Your task to perform on an android device: toggle data saver in the chrome app Image 0: 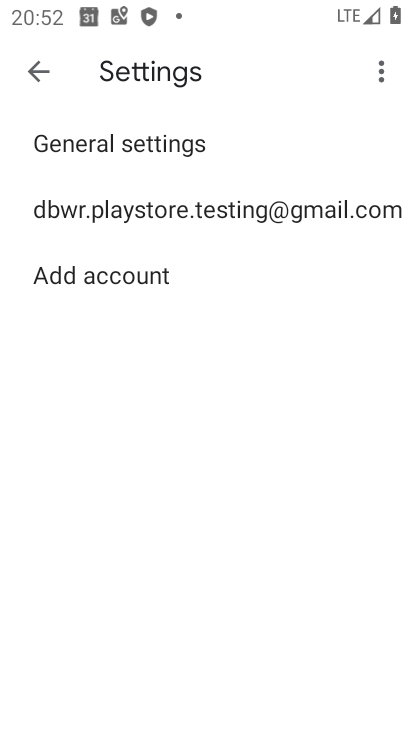
Step 0: press home button
Your task to perform on an android device: toggle data saver in the chrome app Image 1: 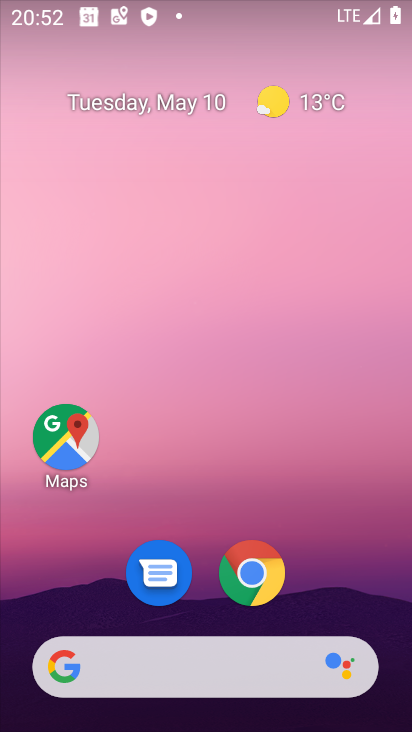
Step 1: click (269, 577)
Your task to perform on an android device: toggle data saver in the chrome app Image 2: 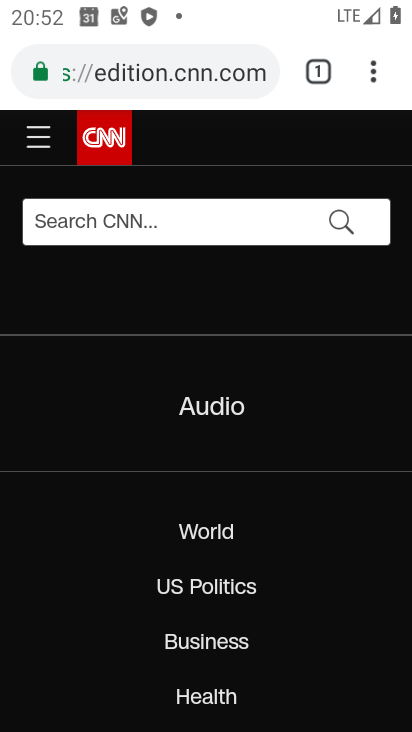
Step 2: click (377, 71)
Your task to perform on an android device: toggle data saver in the chrome app Image 3: 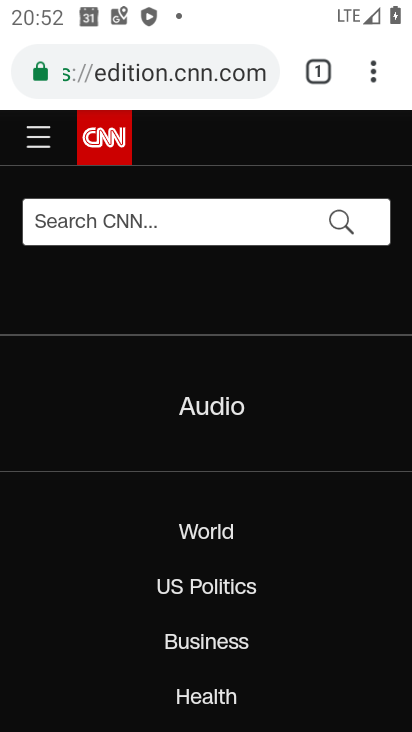
Step 3: drag from (372, 72) to (145, 573)
Your task to perform on an android device: toggle data saver in the chrome app Image 4: 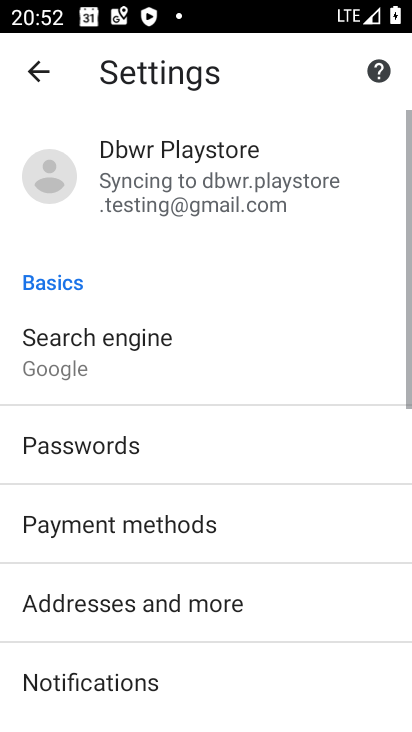
Step 4: drag from (202, 647) to (184, 196)
Your task to perform on an android device: toggle data saver in the chrome app Image 5: 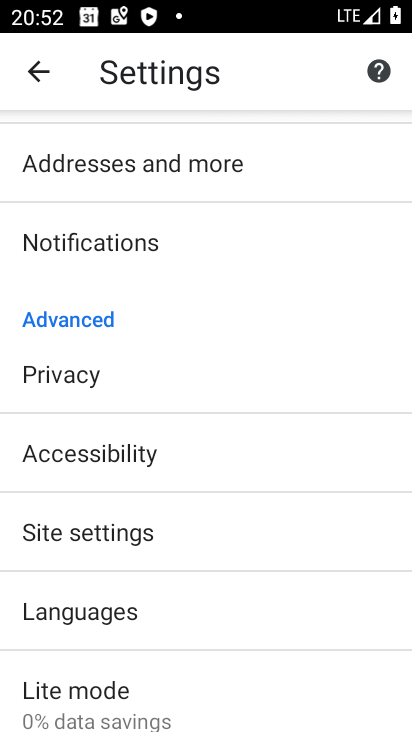
Step 5: click (98, 690)
Your task to perform on an android device: toggle data saver in the chrome app Image 6: 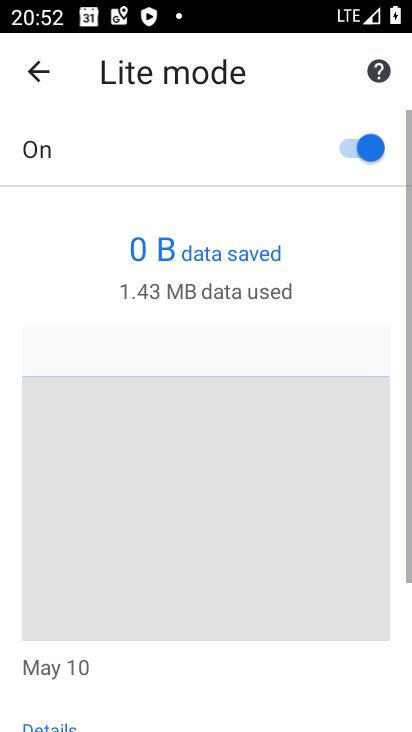
Step 6: drag from (261, 647) to (268, 386)
Your task to perform on an android device: toggle data saver in the chrome app Image 7: 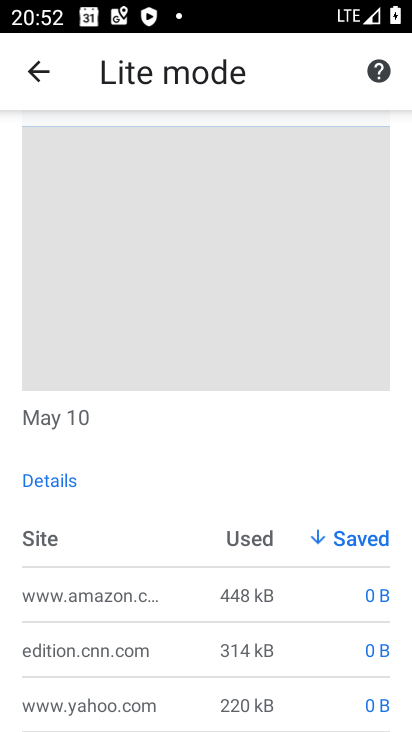
Step 7: drag from (218, 259) to (218, 632)
Your task to perform on an android device: toggle data saver in the chrome app Image 8: 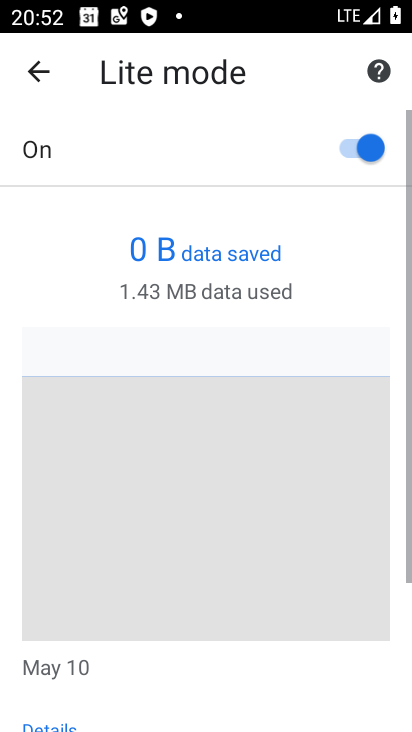
Step 8: click (363, 153)
Your task to perform on an android device: toggle data saver in the chrome app Image 9: 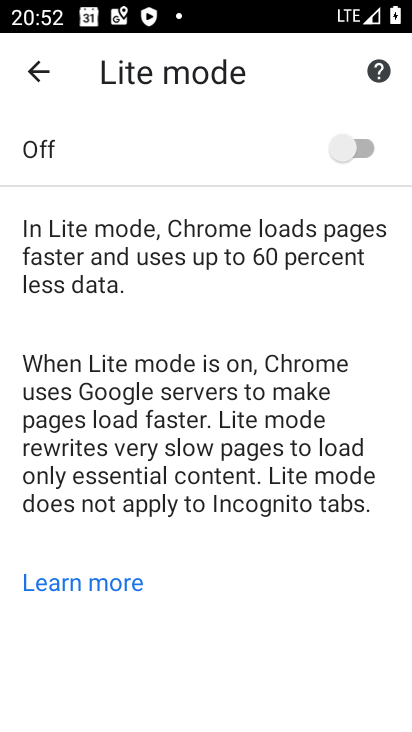
Step 9: task complete